Your task to perform on an android device: turn on notifications settings in the gmail app Image 0: 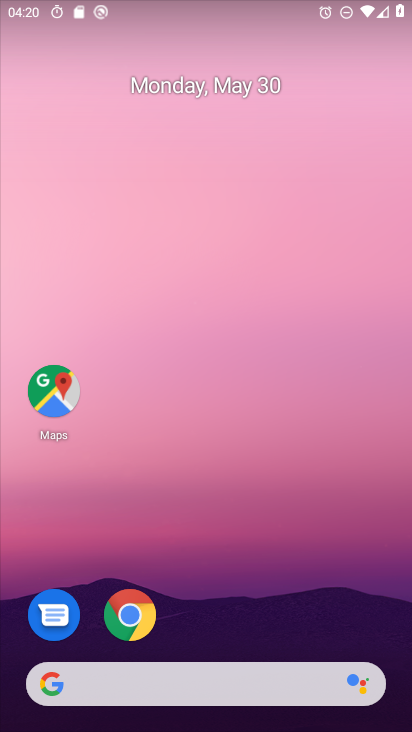
Step 0: drag from (255, 586) to (156, 97)
Your task to perform on an android device: turn on notifications settings in the gmail app Image 1: 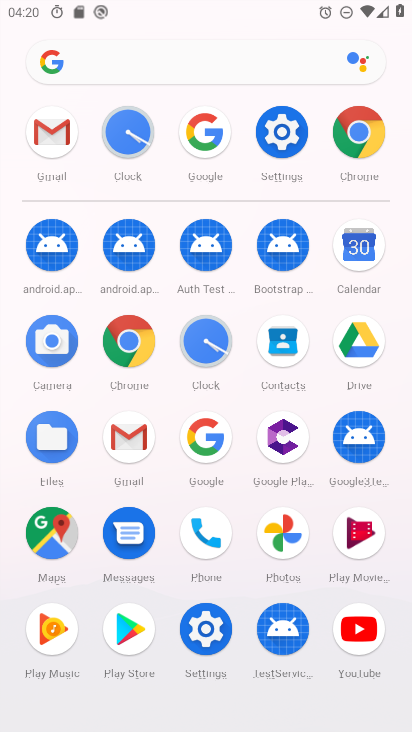
Step 1: click (49, 133)
Your task to perform on an android device: turn on notifications settings in the gmail app Image 2: 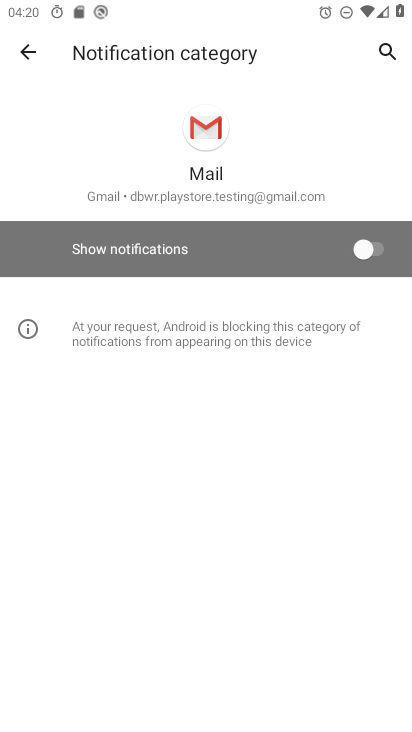
Step 2: click (370, 252)
Your task to perform on an android device: turn on notifications settings in the gmail app Image 3: 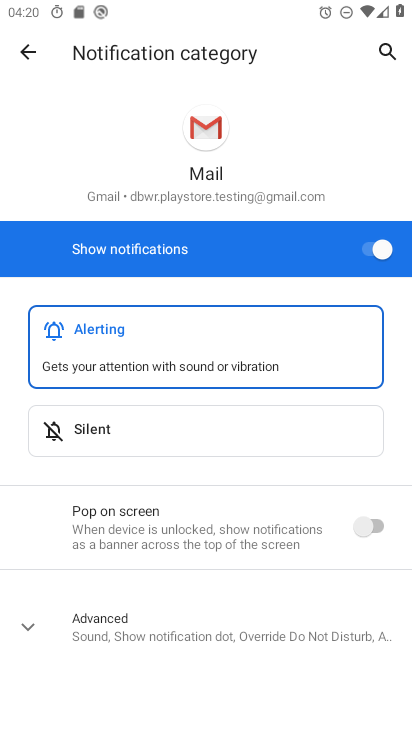
Step 3: task complete